Your task to perform on an android device: Show me the alarms in the clock app Image 0: 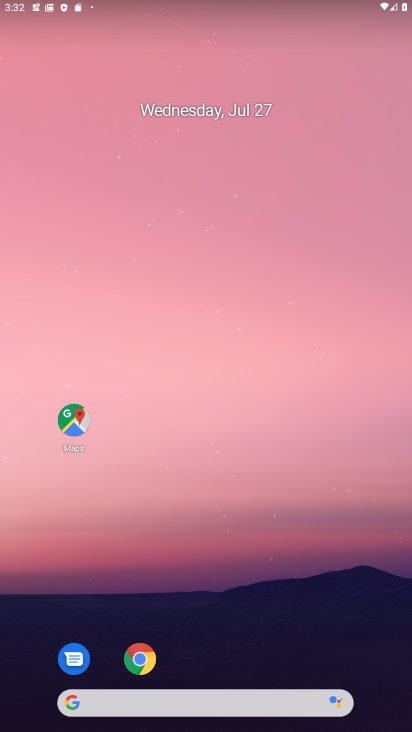
Step 0: drag from (202, 657) to (184, 203)
Your task to perform on an android device: Show me the alarms in the clock app Image 1: 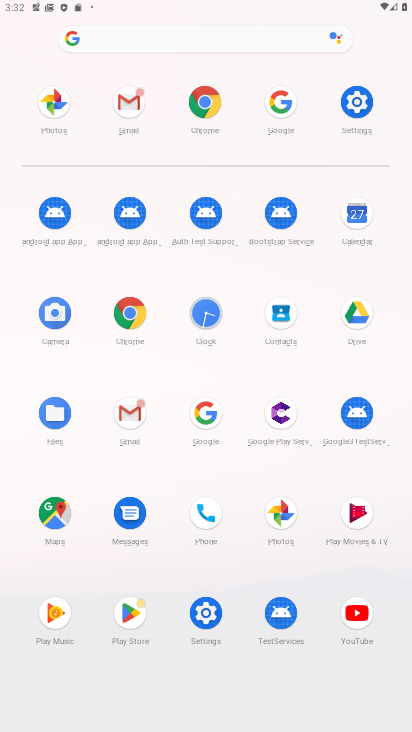
Step 1: click (199, 320)
Your task to perform on an android device: Show me the alarms in the clock app Image 2: 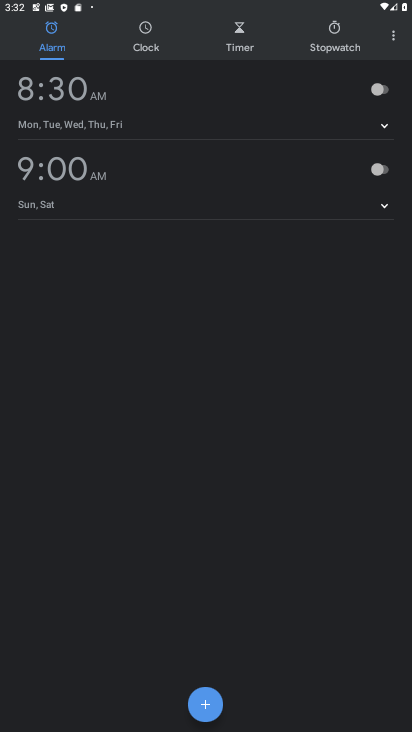
Step 2: task complete